Your task to perform on an android device: check storage Image 0: 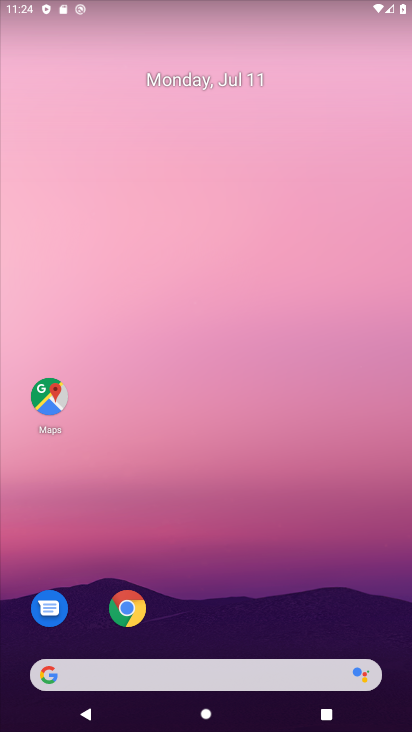
Step 0: drag from (204, 616) to (278, 9)
Your task to perform on an android device: check storage Image 1: 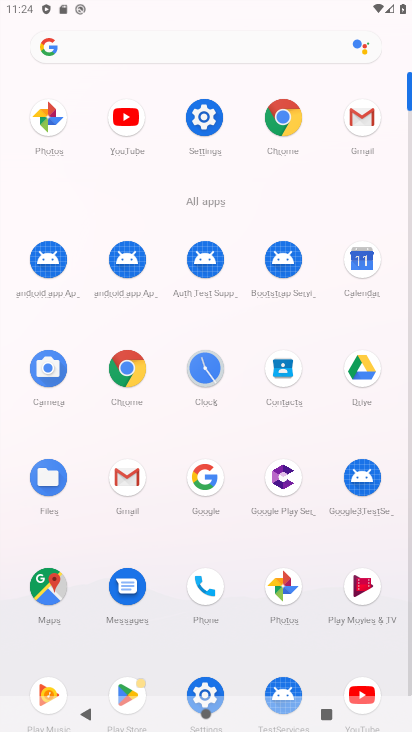
Step 1: click (211, 117)
Your task to perform on an android device: check storage Image 2: 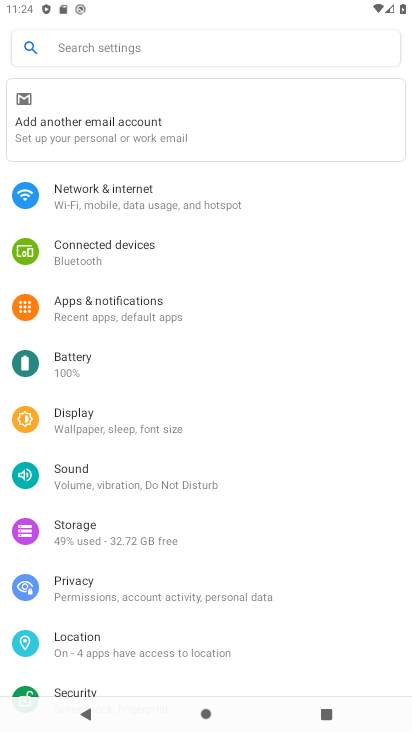
Step 2: click (112, 535)
Your task to perform on an android device: check storage Image 3: 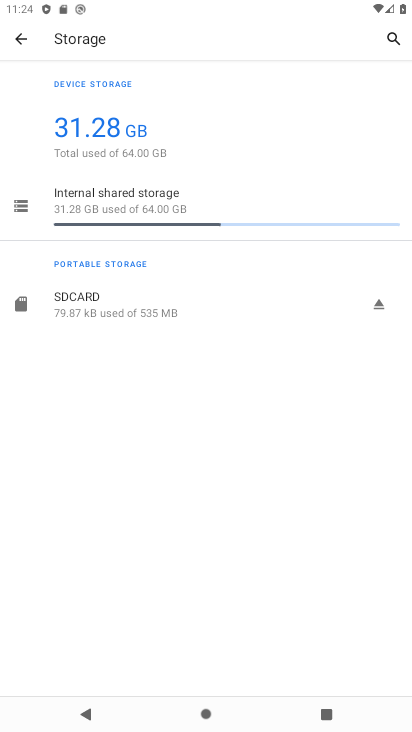
Step 3: task complete